Your task to perform on an android device: star an email in the gmail app Image 0: 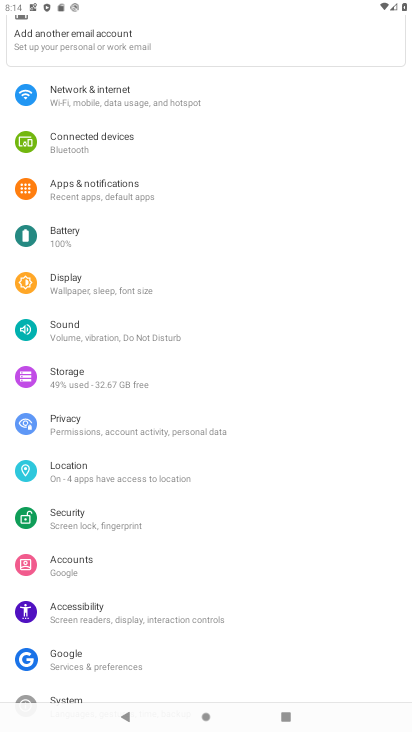
Step 0: press home button
Your task to perform on an android device: star an email in the gmail app Image 1: 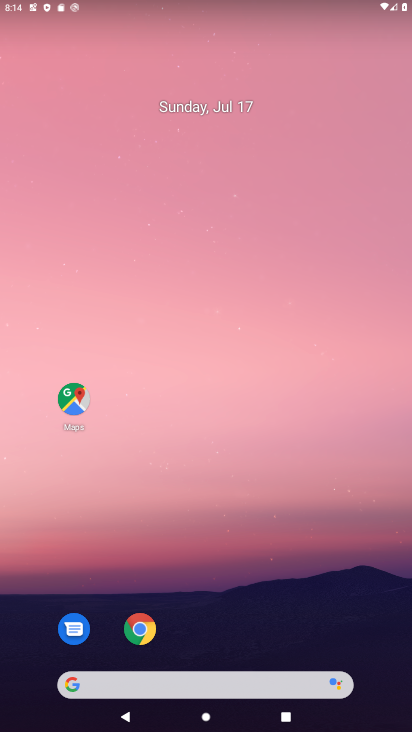
Step 1: drag from (238, 673) to (233, 114)
Your task to perform on an android device: star an email in the gmail app Image 2: 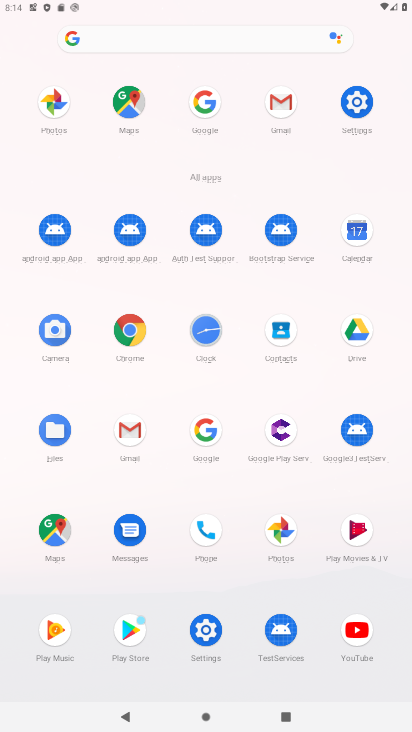
Step 2: click (127, 430)
Your task to perform on an android device: star an email in the gmail app Image 3: 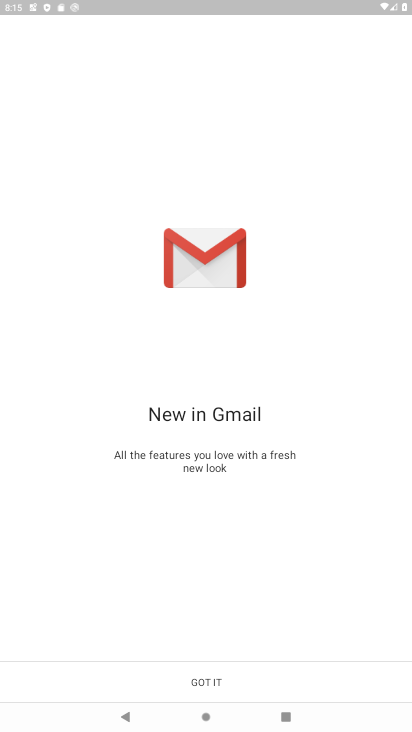
Step 3: click (198, 681)
Your task to perform on an android device: star an email in the gmail app Image 4: 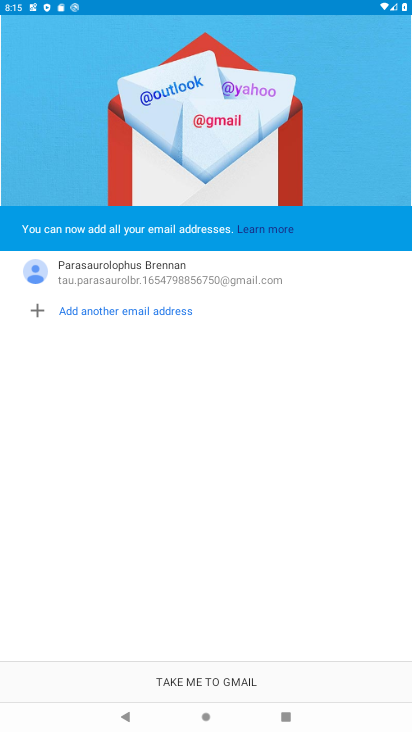
Step 4: click (194, 674)
Your task to perform on an android device: star an email in the gmail app Image 5: 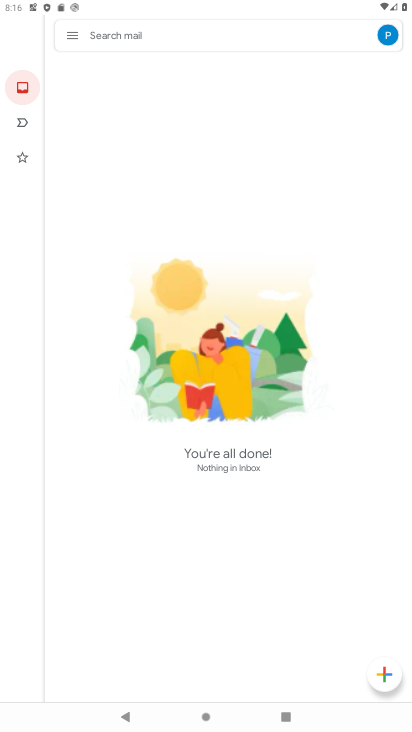
Step 5: click (23, 84)
Your task to perform on an android device: star an email in the gmail app Image 6: 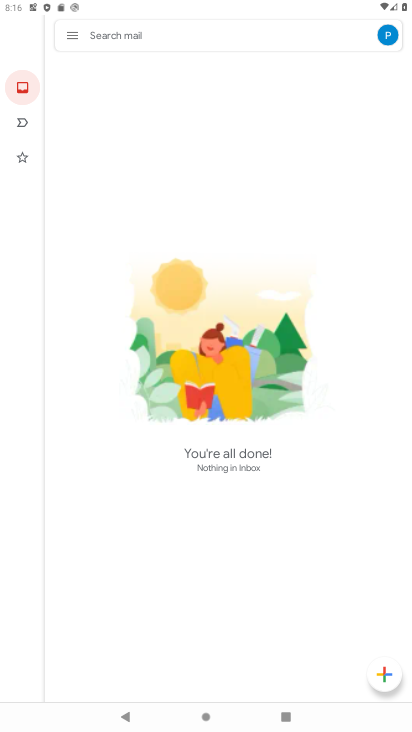
Step 6: task complete